Your task to perform on an android device: Show me popular games on the Play Store Image 0: 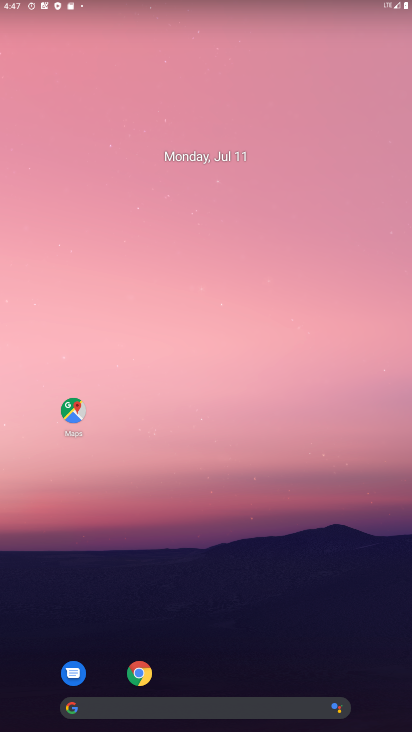
Step 0: drag from (237, 709) to (242, 83)
Your task to perform on an android device: Show me popular games on the Play Store Image 1: 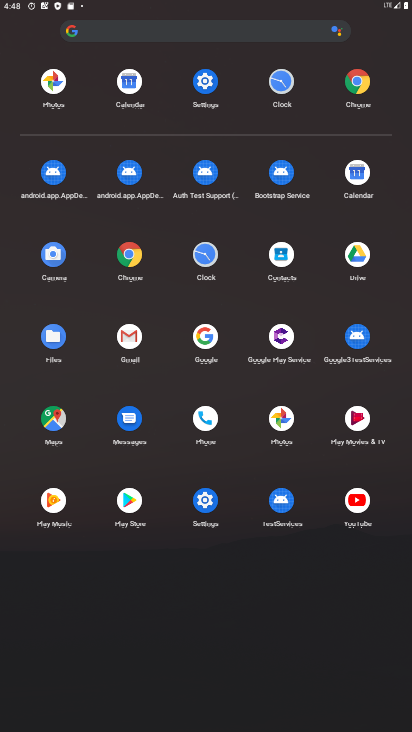
Step 1: click (130, 499)
Your task to perform on an android device: Show me popular games on the Play Store Image 2: 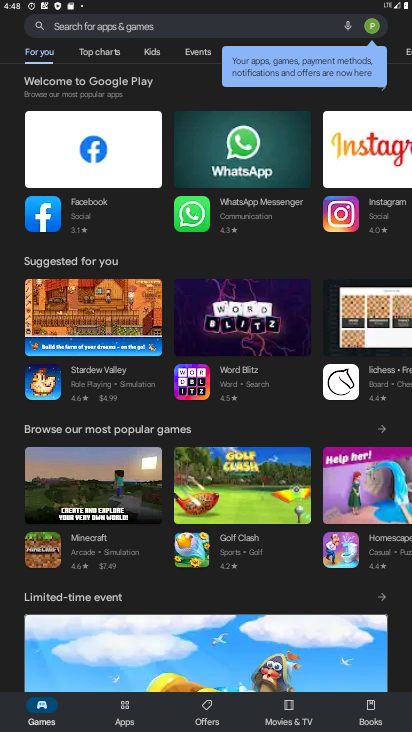
Step 2: click (194, 26)
Your task to perform on an android device: Show me popular games on the Play Store Image 3: 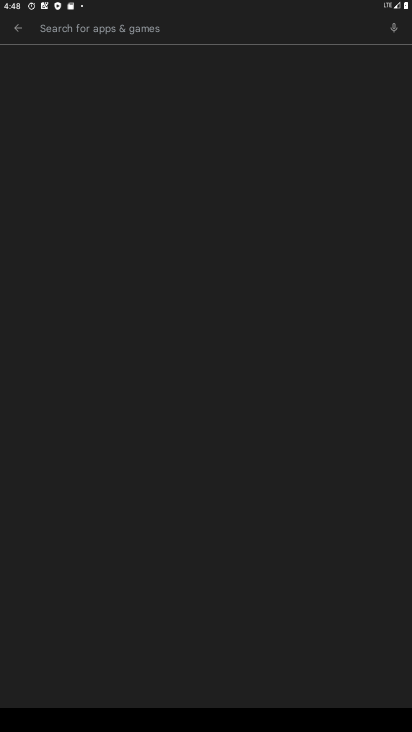
Step 3: type "popular games"
Your task to perform on an android device: Show me popular games on the Play Store Image 4: 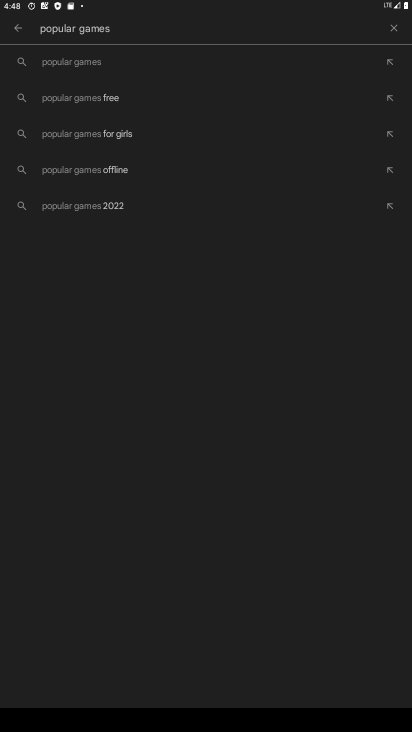
Step 4: click (91, 68)
Your task to perform on an android device: Show me popular games on the Play Store Image 5: 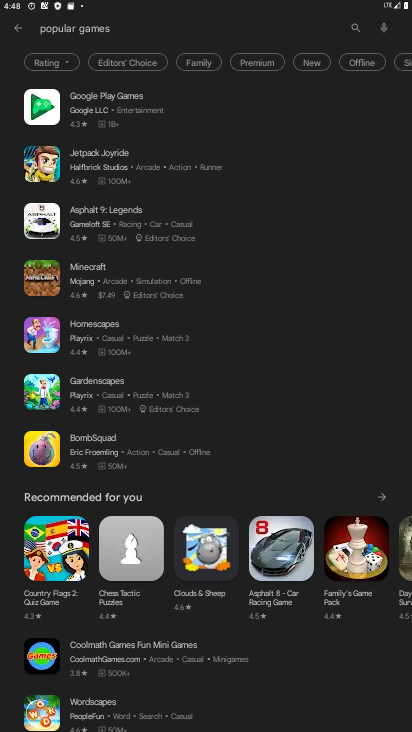
Step 5: task complete